Your task to perform on an android device: Open Maps and search for coffee Image 0: 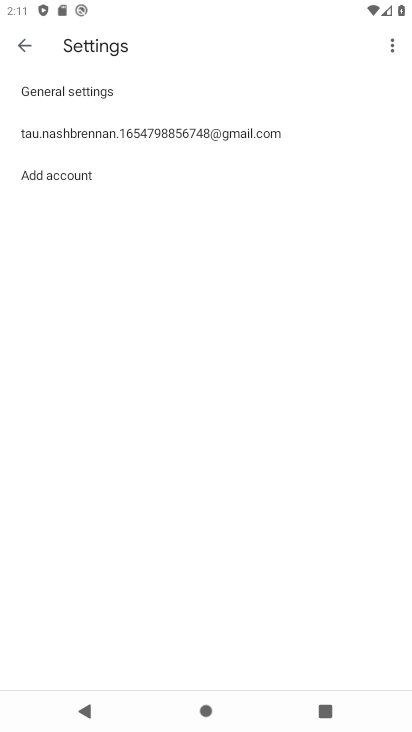
Step 0: press home button
Your task to perform on an android device: Open Maps and search for coffee Image 1: 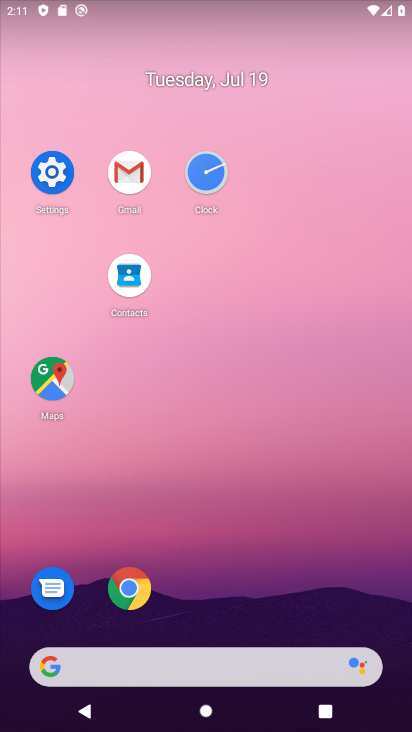
Step 1: click (37, 390)
Your task to perform on an android device: Open Maps and search for coffee Image 2: 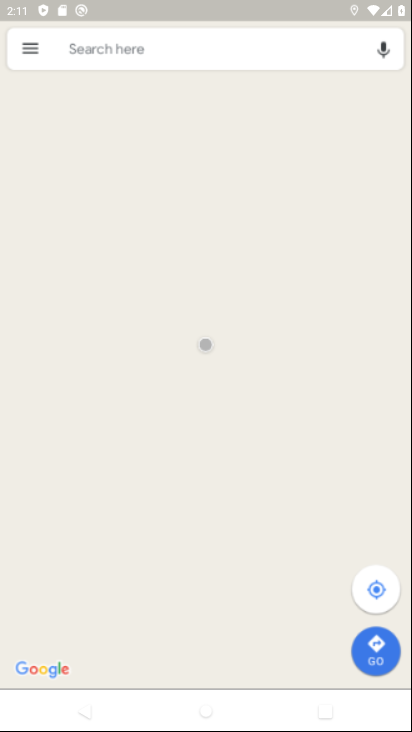
Step 2: click (153, 55)
Your task to perform on an android device: Open Maps and search for coffee Image 3: 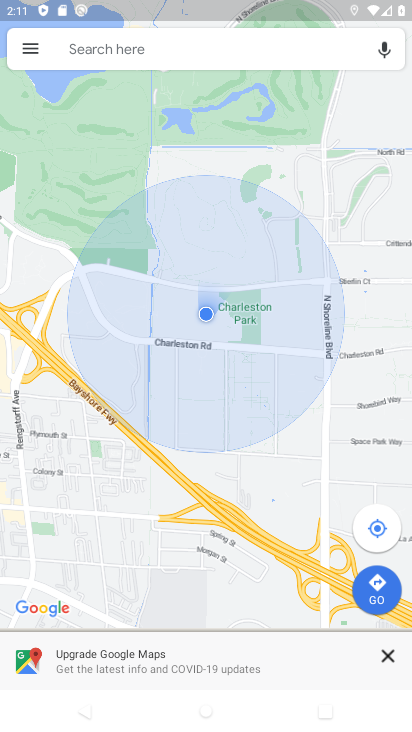
Step 3: click (153, 55)
Your task to perform on an android device: Open Maps and search for coffee Image 4: 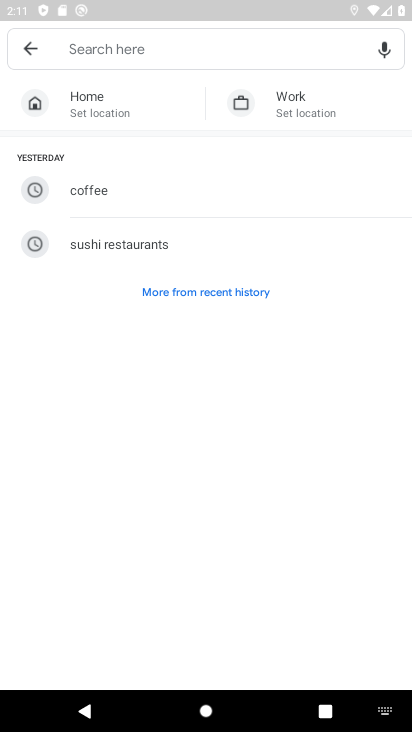
Step 4: type "coffee"
Your task to perform on an android device: Open Maps and search for coffee Image 5: 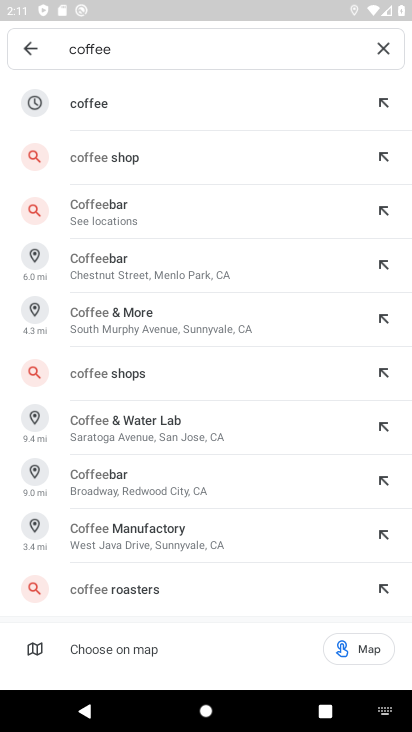
Step 5: click (197, 97)
Your task to perform on an android device: Open Maps and search for coffee Image 6: 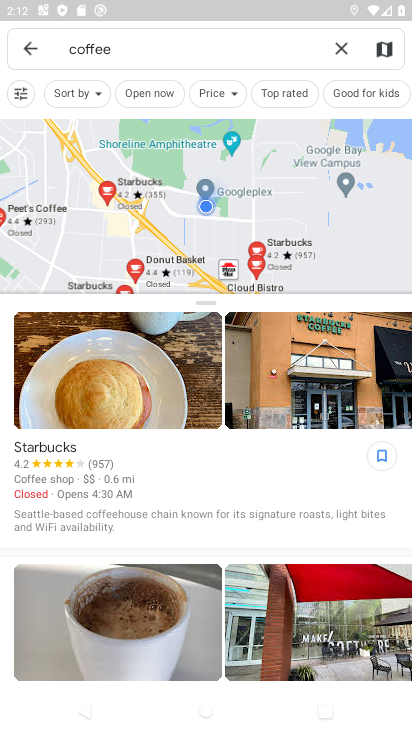
Step 6: task complete